Your task to perform on an android device: turn off translation in the chrome app Image 0: 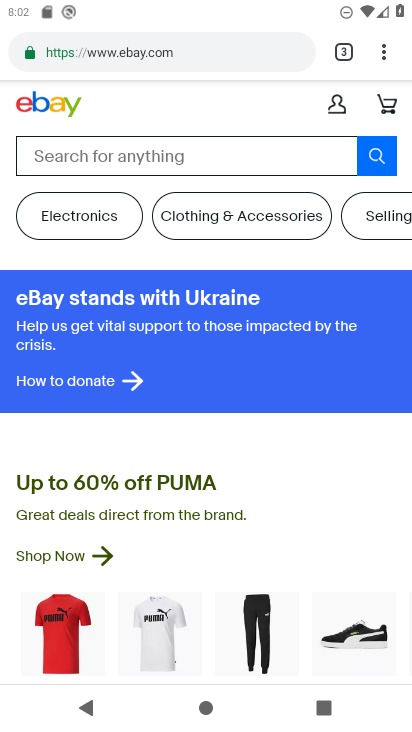
Step 0: press back button
Your task to perform on an android device: turn off translation in the chrome app Image 1: 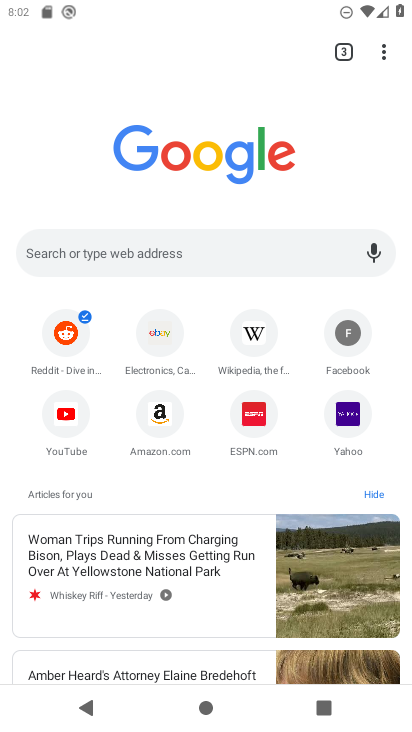
Step 1: drag from (386, 43) to (196, 435)
Your task to perform on an android device: turn off translation in the chrome app Image 2: 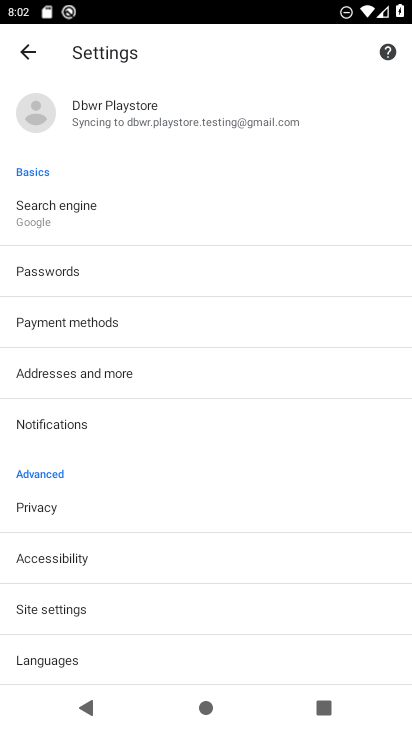
Step 2: click (57, 655)
Your task to perform on an android device: turn off translation in the chrome app Image 3: 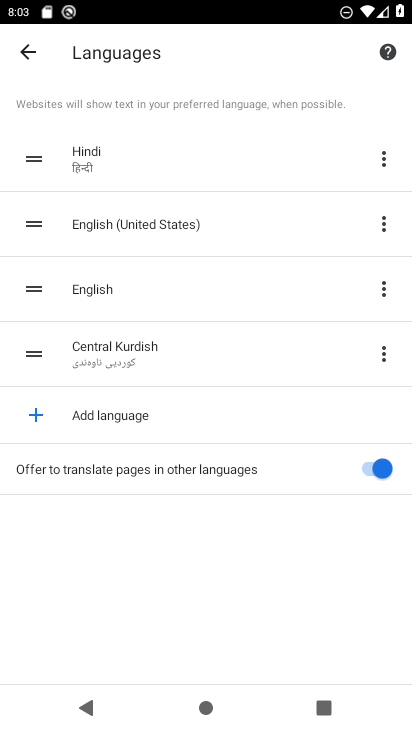
Step 3: click (373, 464)
Your task to perform on an android device: turn off translation in the chrome app Image 4: 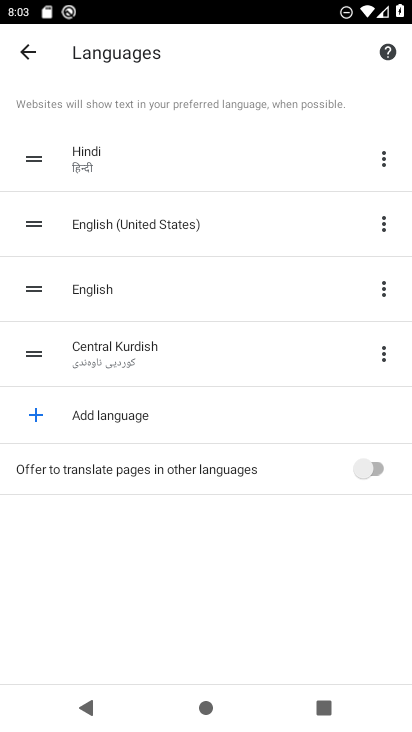
Step 4: task complete